Your task to perform on an android device: Open maps Image 0: 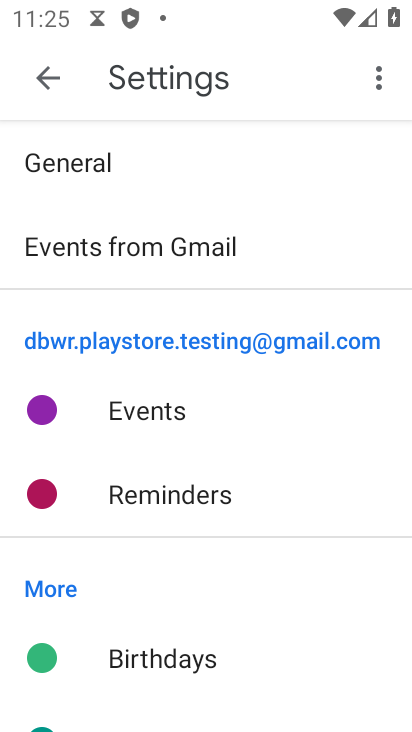
Step 0: press home button
Your task to perform on an android device: Open maps Image 1: 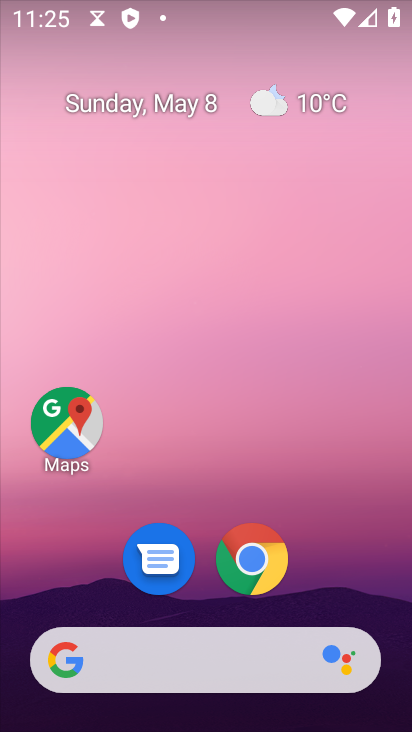
Step 1: click (73, 418)
Your task to perform on an android device: Open maps Image 2: 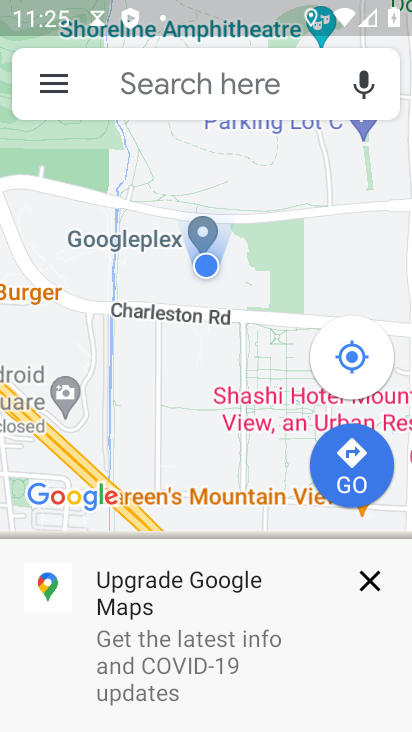
Step 2: click (372, 587)
Your task to perform on an android device: Open maps Image 3: 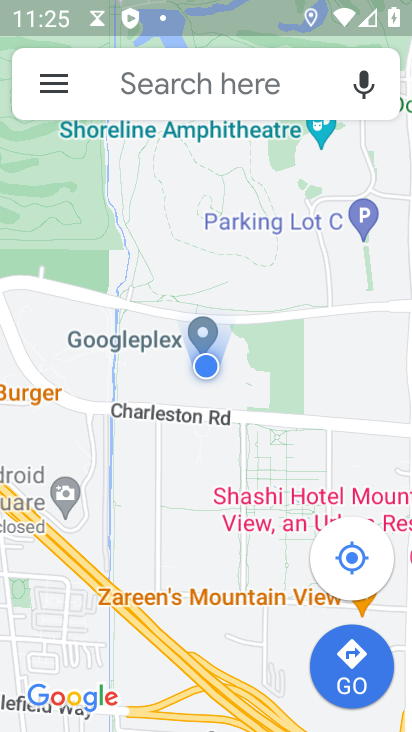
Step 3: task complete